Your task to perform on an android device: check data usage Image 0: 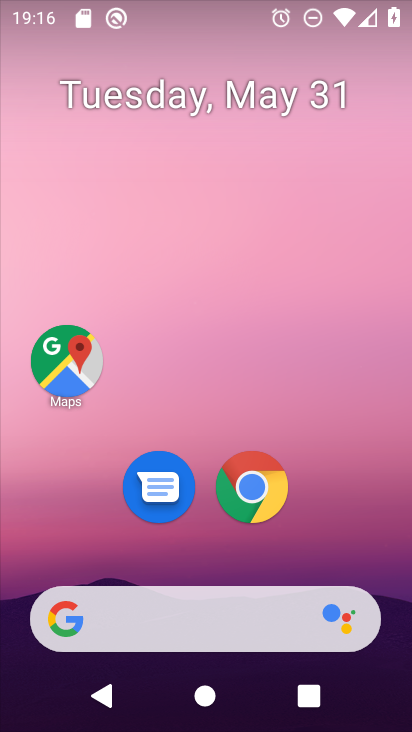
Step 0: drag from (328, 476) to (217, 54)
Your task to perform on an android device: check data usage Image 1: 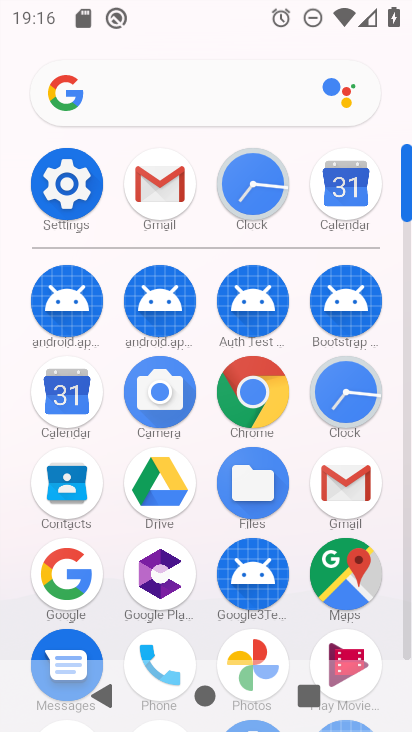
Step 1: click (69, 183)
Your task to perform on an android device: check data usage Image 2: 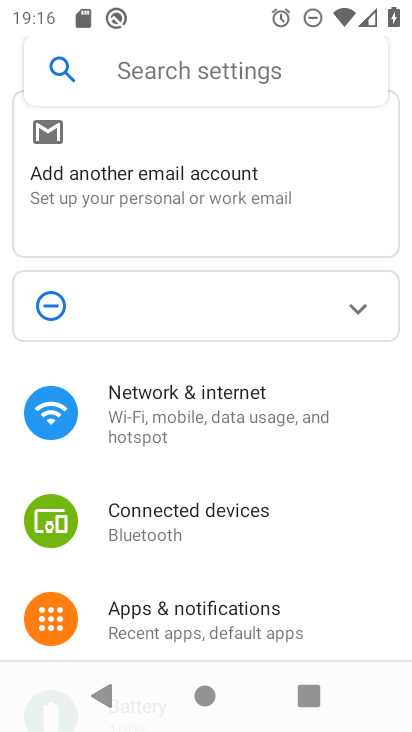
Step 2: click (178, 408)
Your task to perform on an android device: check data usage Image 3: 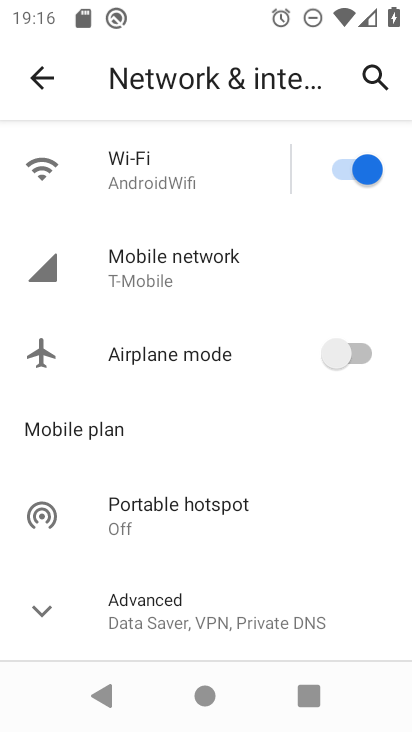
Step 3: click (171, 244)
Your task to perform on an android device: check data usage Image 4: 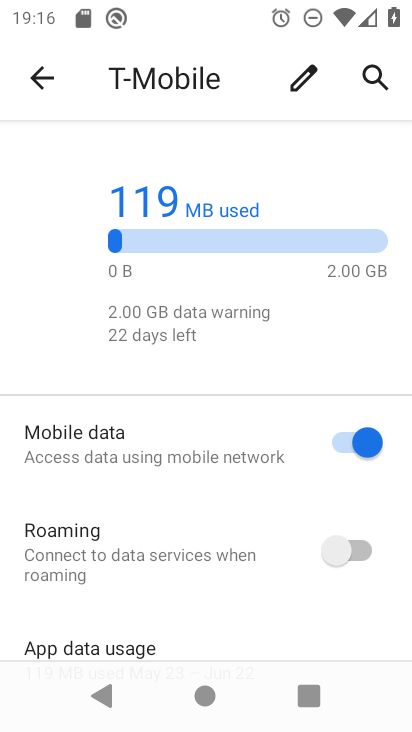
Step 4: task complete